Your task to perform on an android device: open wifi settings Image 0: 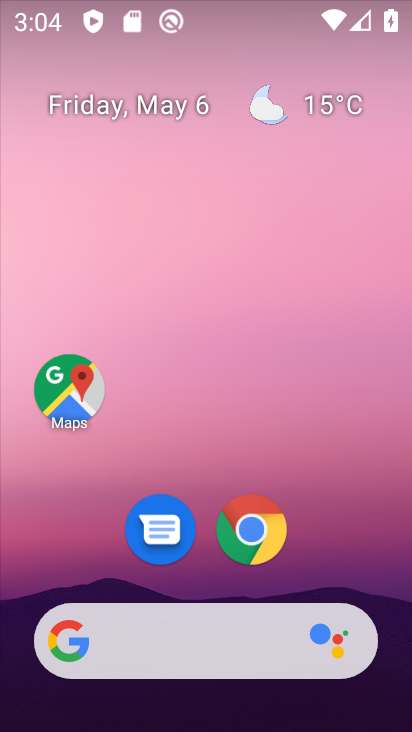
Step 0: drag from (329, 654) to (124, 213)
Your task to perform on an android device: open wifi settings Image 1: 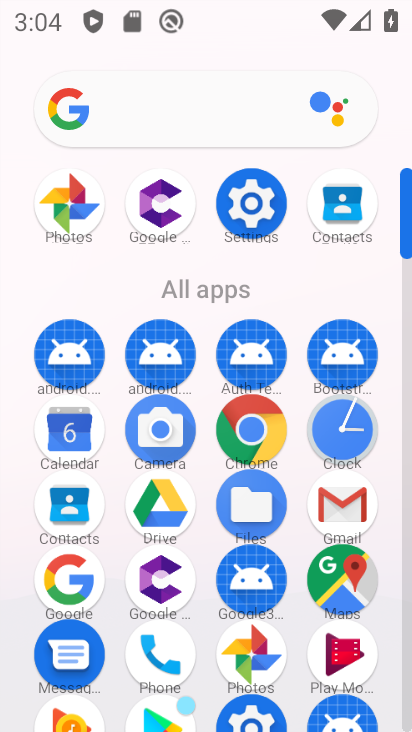
Step 1: click (253, 211)
Your task to perform on an android device: open wifi settings Image 2: 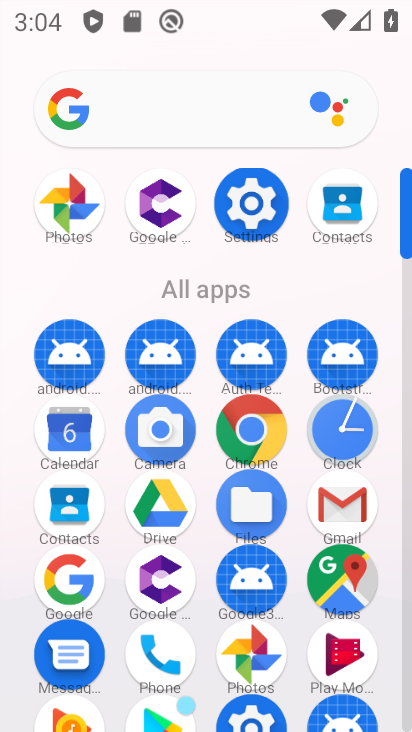
Step 2: click (253, 211)
Your task to perform on an android device: open wifi settings Image 3: 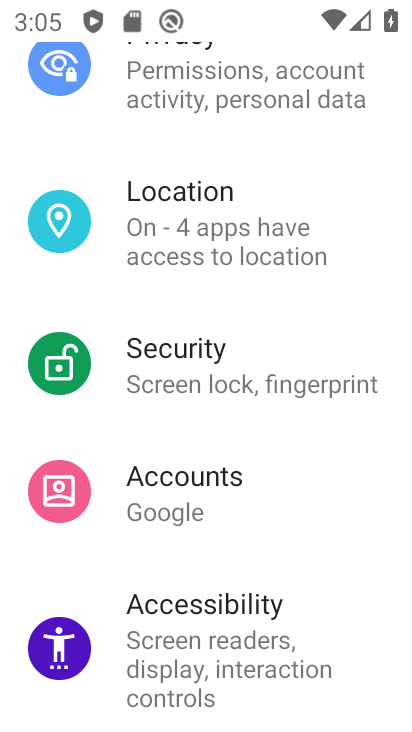
Step 3: drag from (197, 502) to (216, 531)
Your task to perform on an android device: open wifi settings Image 4: 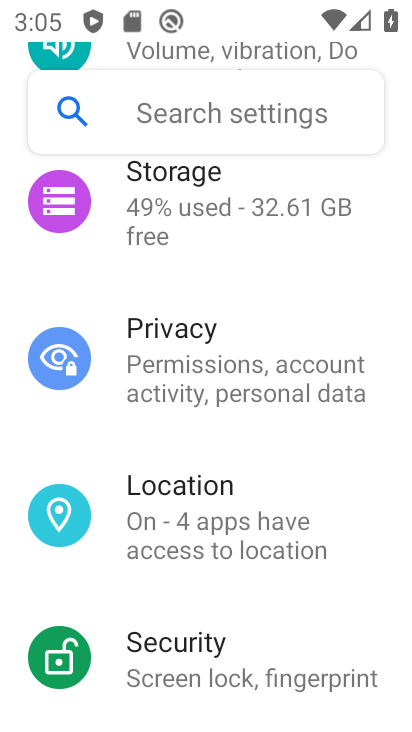
Step 4: drag from (198, 195) to (241, 574)
Your task to perform on an android device: open wifi settings Image 5: 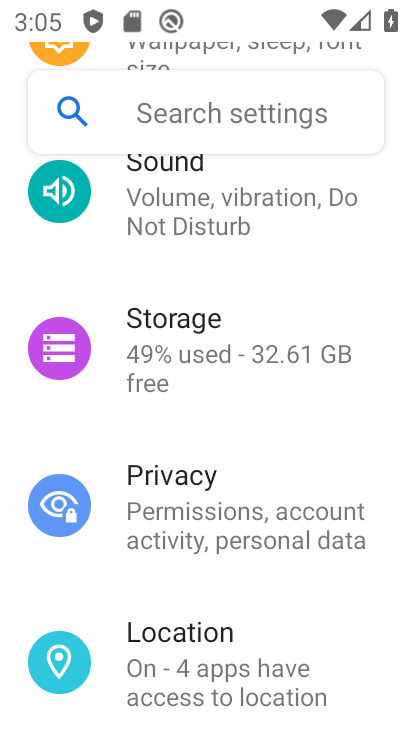
Step 5: drag from (263, 289) to (264, 729)
Your task to perform on an android device: open wifi settings Image 6: 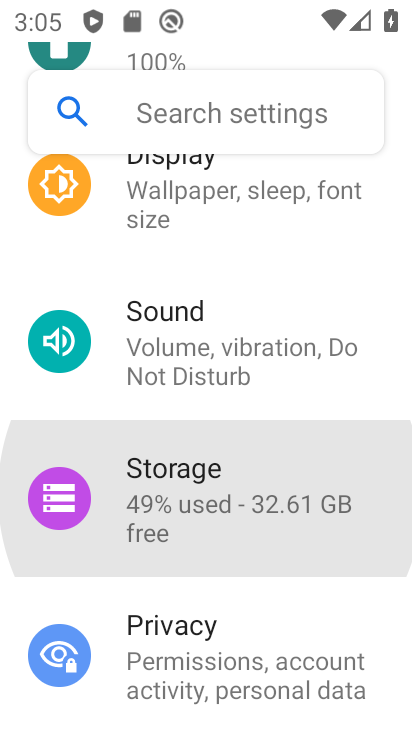
Step 6: drag from (247, 389) to (255, 608)
Your task to perform on an android device: open wifi settings Image 7: 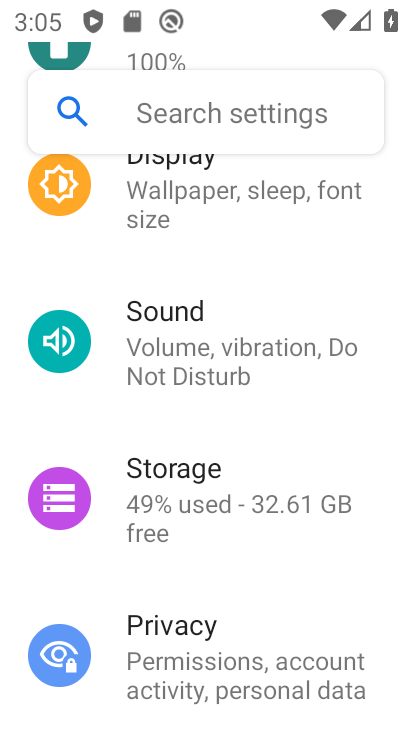
Step 7: drag from (198, 367) to (221, 582)
Your task to perform on an android device: open wifi settings Image 8: 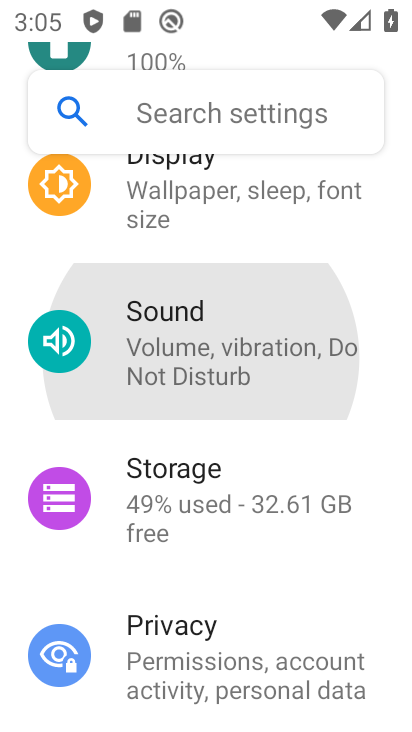
Step 8: drag from (170, 328) to (211, 571)
Your task to perform on an android device: open wifi settings Image 9: 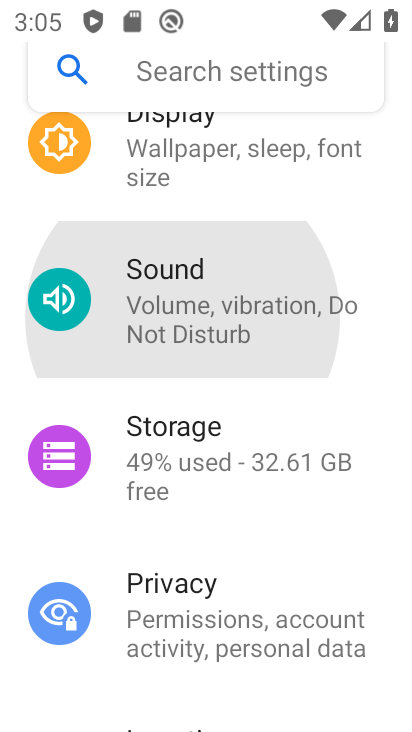
Step 9: drag from (227, 370) to (213, 554)
Your task to perform on an android device: open wifi settings Image 10: 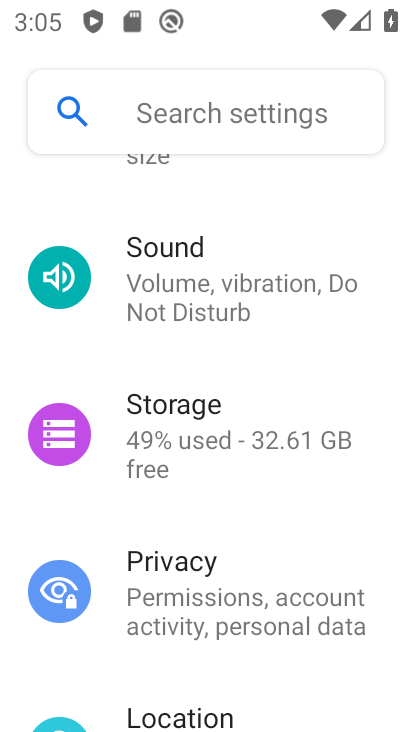
Step 10: drag from (229, 192) to (253, 608)
Your task to perform on an android device: open wifi settings Image 11: 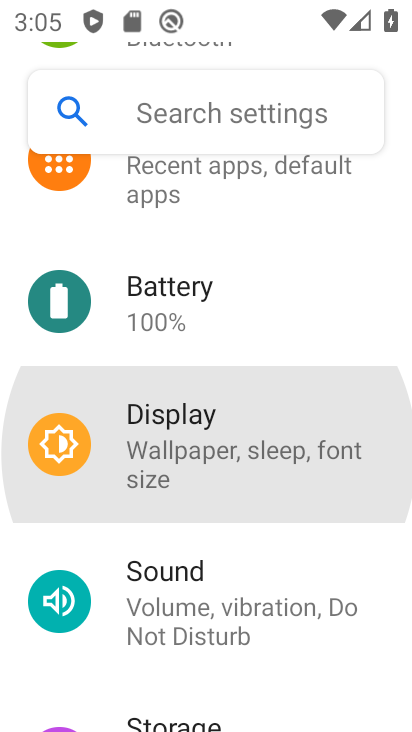
Step 11: drag from (189, 226) to (238, 561)
Your task to perform on an android device: open wifi settings Image 12: 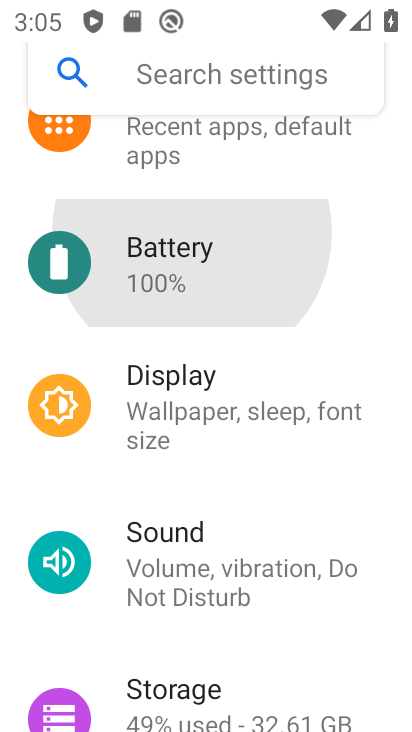
Step 12: drag from (179, 167) to (246, 599)
Your task to perform on an android device: open wifi settings Image 13: 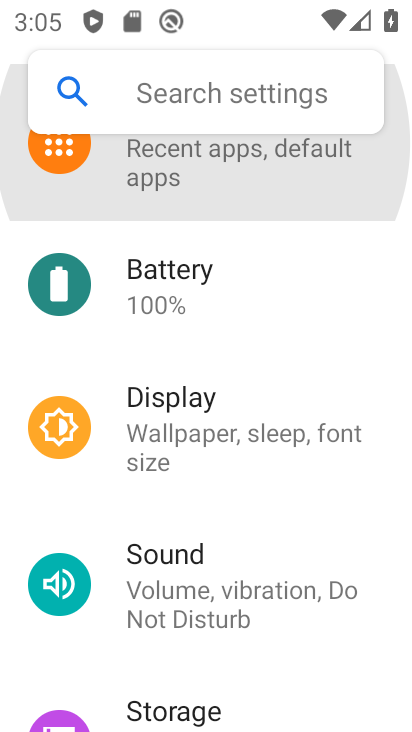
Step 13: drag from (231, 453) to (270, 654)
Your task to perform on an android device: open wifi settings Image 14: 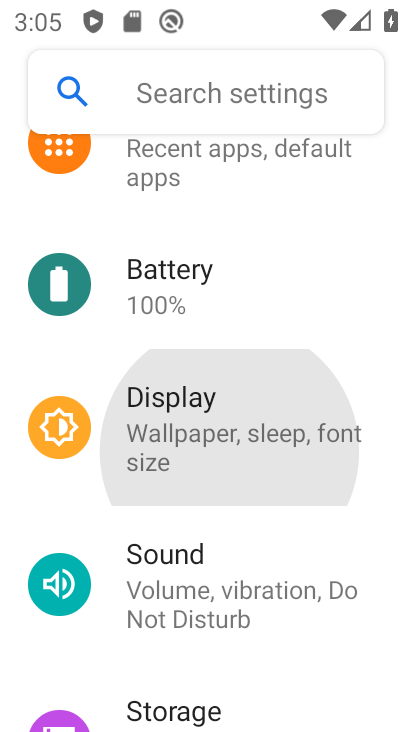
Step 14: click (299, 457)
Your task to perform on an android device: open wifi settings Image 15: 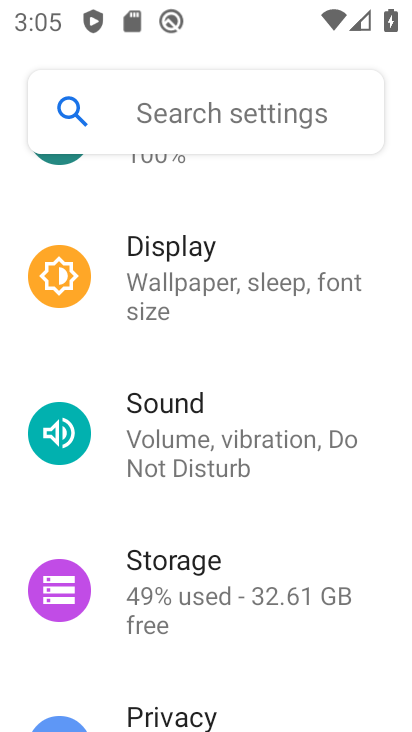
Step 15: drag from (168, 190) to (232, 597)
Your task to perform on an android device: open wifi settings Image 16: 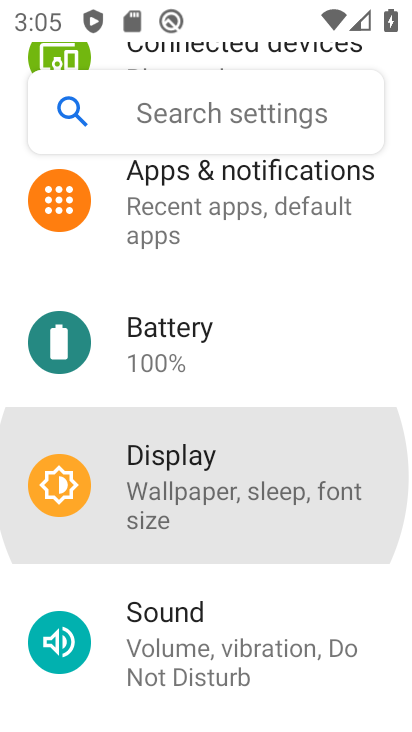
Step 16: drag from (210, 275) to (263, 622)
Your task to perform on an android device: open wifi settings Image 17: 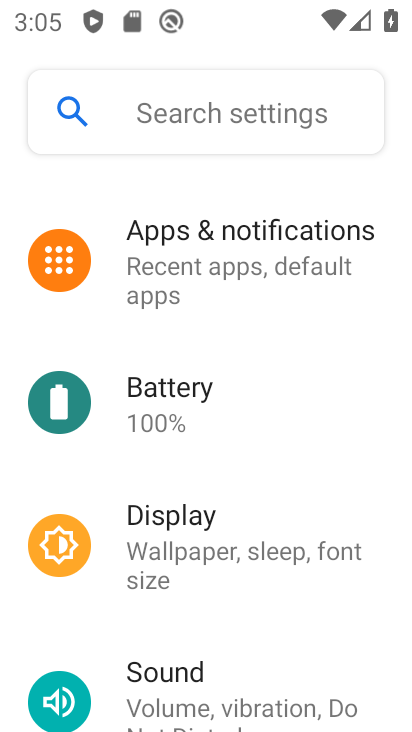
Step 17: drag from (256, 399) to (272, 516)
Your task to perform on an android device: open wifi settings Image 18: 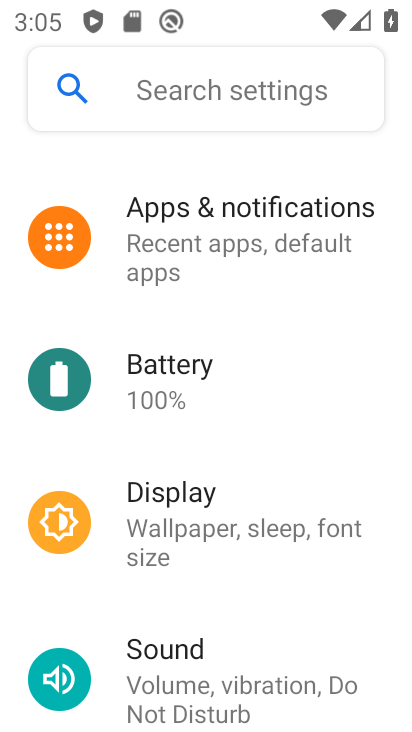
Step 18: drag from (200, 345) to (240, 599)
Your task to perform on an android device: open wifi settings Image 19: 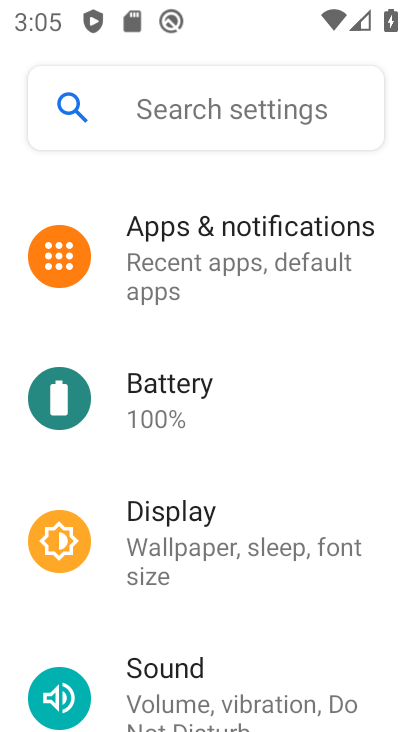
Step 19: click (212, 508)
Your task to perform on an android device: open wifi settings Image 20: 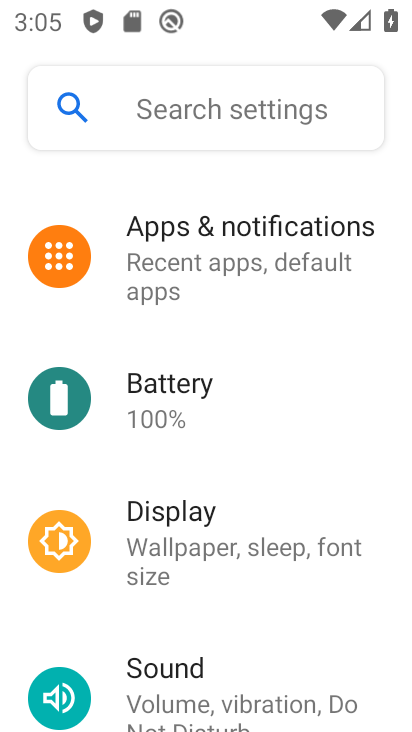
Step 20: drag from (175, 319) to (255, 626)
Your task to perform on an android device: open wifi settings Image 21: 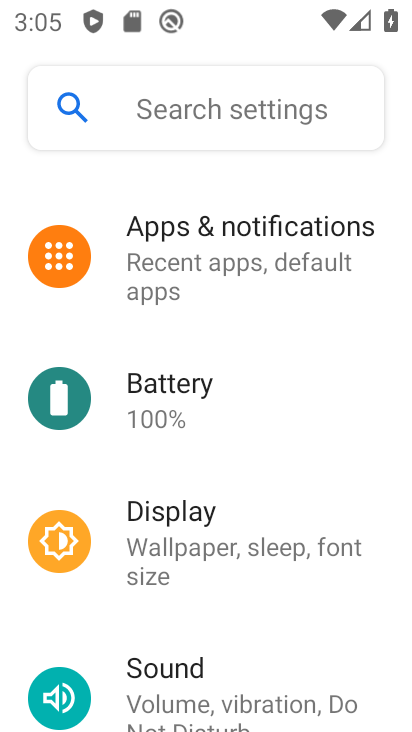
Step 21: drag from (172, 367) to (224, 596)
Your task to perform on an android device: open wifi settings Image 22: 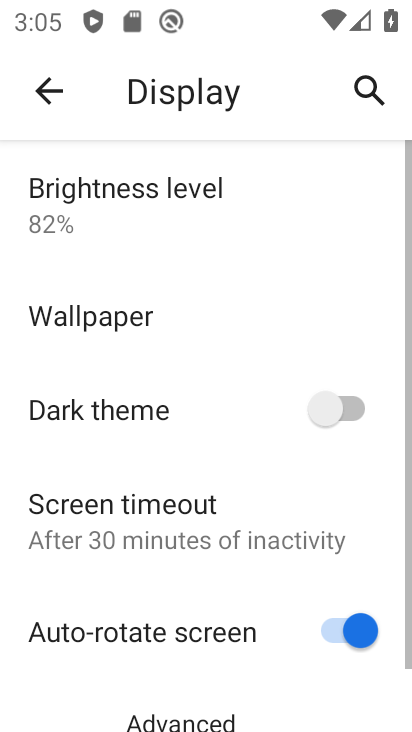
Step 22: drag from (242, 563) to (249, 616)
Your task to perform on an android device: open wifi settings Image 23: 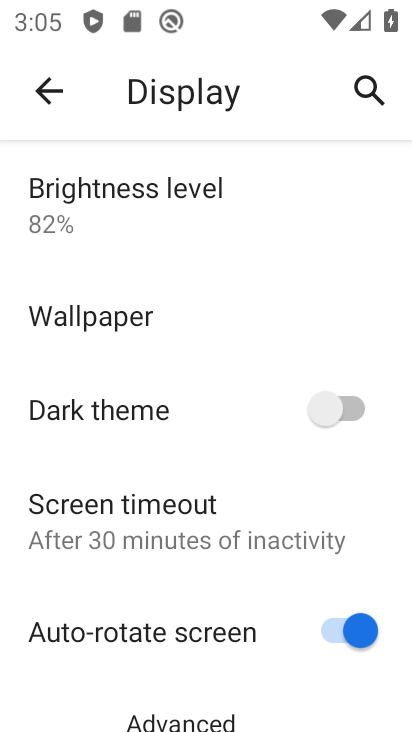
Step 23: click (46, 87)
Your task to perform on an android device: open wifi settings Image 24: 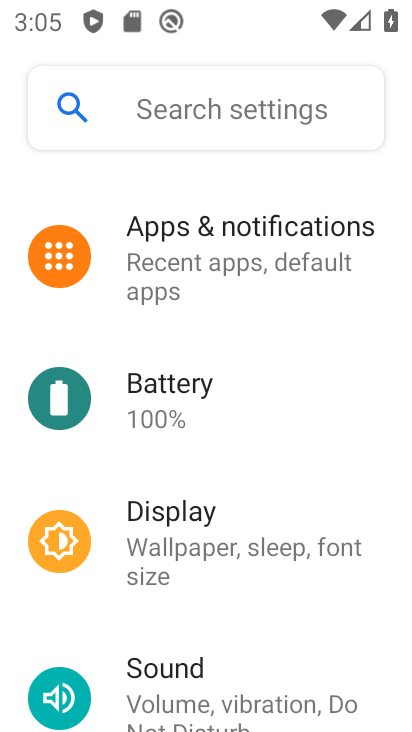
Step 24: click (203, 696)
Your task to perform on an android device: open wifi settings Image 25: 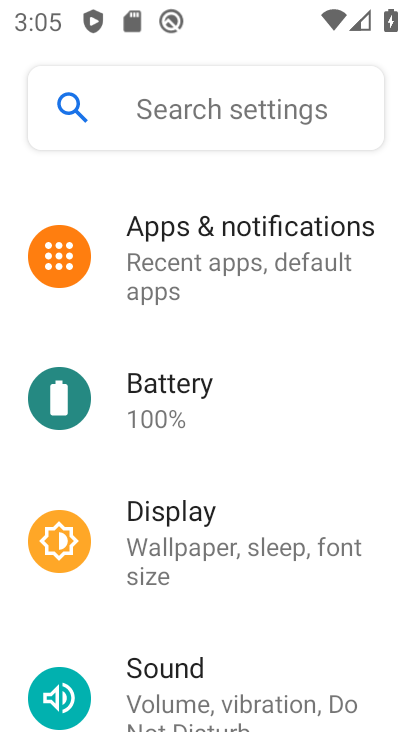
Step 25: drag from (164, 280) to (199, 663)
Your task to perform on an android device: open wifi settings Image 26: 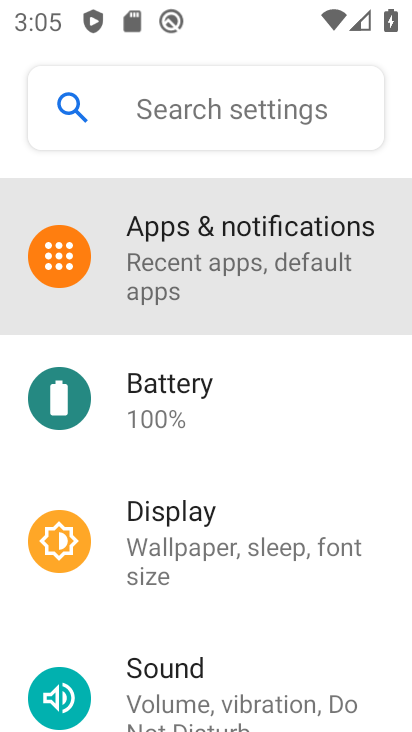
Step 26: drag from (204, 267) to (211, 707)
Your task to perform on an android device: open wifi settings Image 27: 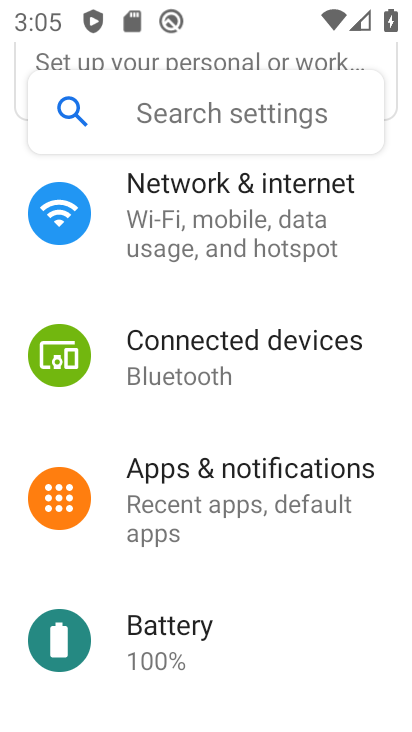
Step 27: drag from (178, 230) to (221, 666)
Your task to perform on an android device: open wifi settings Image 28: 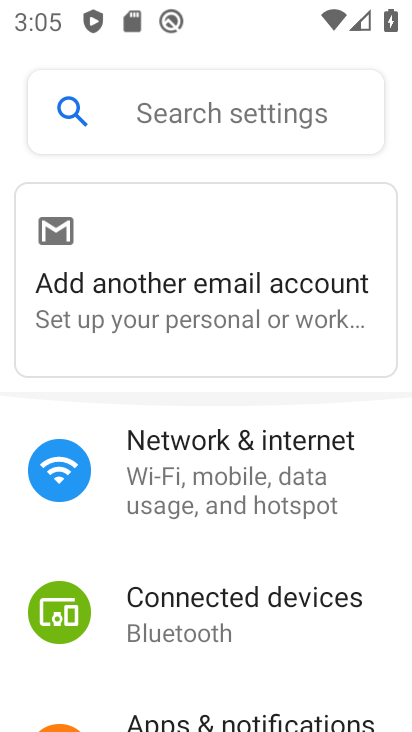
Step 28: drag from (211, 247) to (219, 690)
Your task to perform on an android device: open wifi settings Image 29: 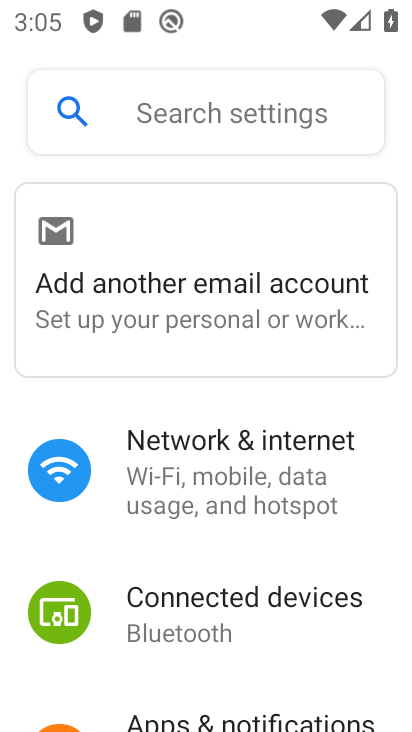
Step 29: click (223, 477)
Your task to perform on an android device: open wifi settings Image 30: 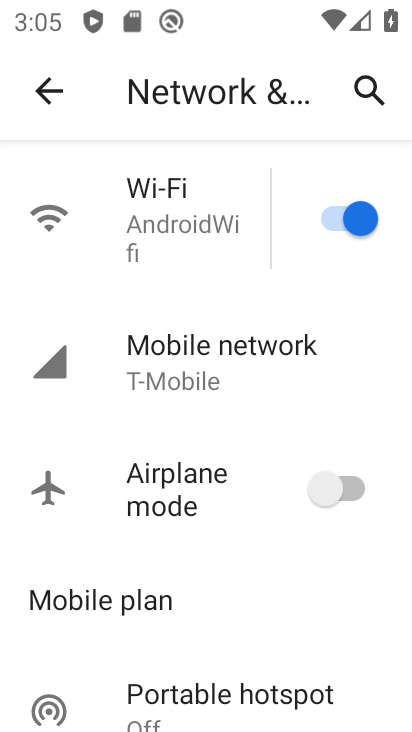
Step 30: task complete